Your task to perform on an android device: open chrome and create a bookmark for the current page Image 0: 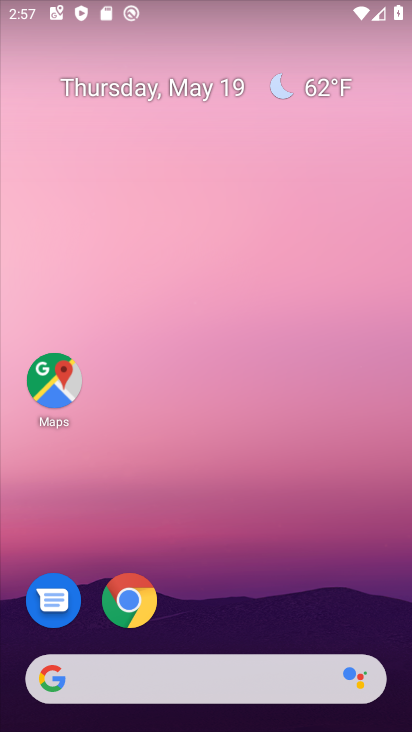
Step 0: press home button
Your task to perform on an android device: open chrome and create a bookmark for the current page Image 1: 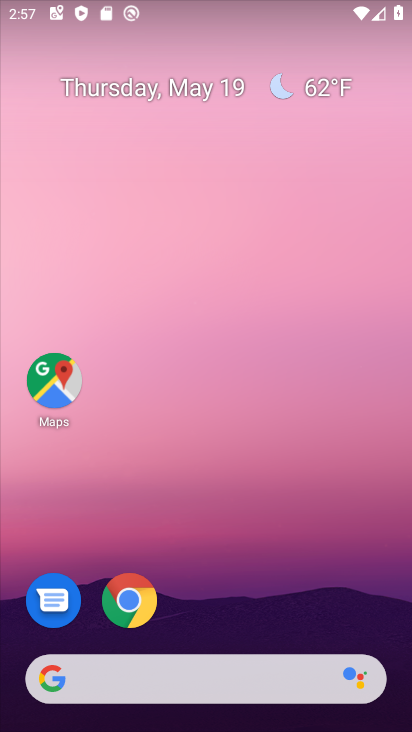
Step 1: drag from (52, 471) to (210, 152)
Your task to perform on an android device: open chrome and create a bookmark for the current page Image 2: 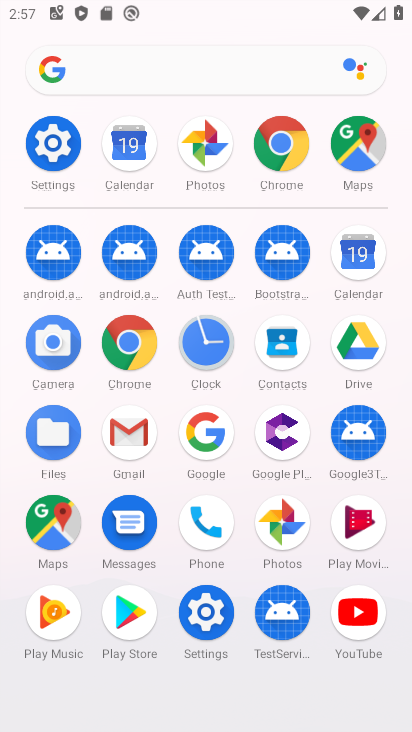
Step 2: click (287, 143)
Your task to perform on an android device: open chrome and create a bookmark for the current page Image 3: 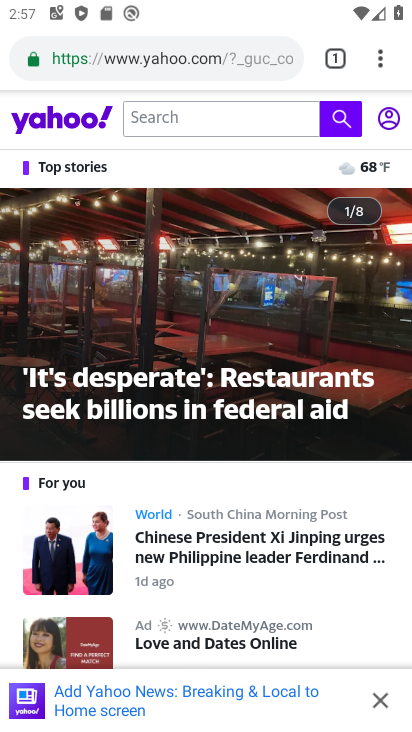
Step 3: click (339, 60)
Your task to perform on an android device: open chrome and create a bookmark for the current page Image 4: 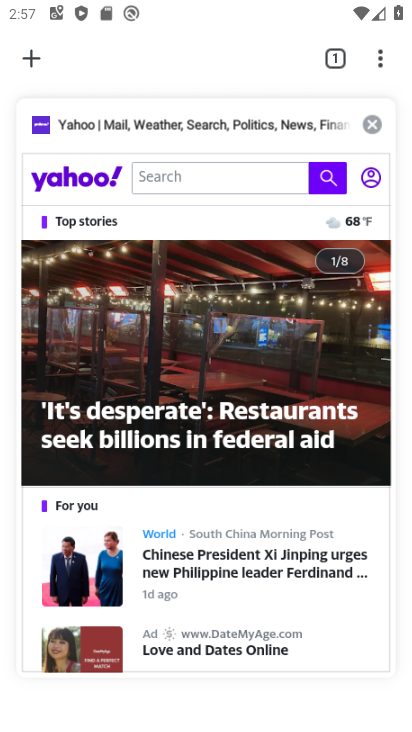
Step 4: click (195, 299)
Your task to perform on an android device: open chrome and create a bookmark for the current page Image 5: 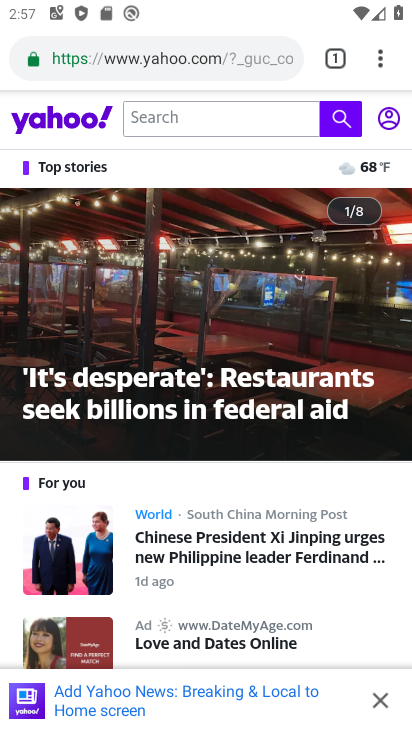
Step 5: click (376, 58)
Your task to perform on an android device: open chrome and create a bookmark for the current page Image 6: 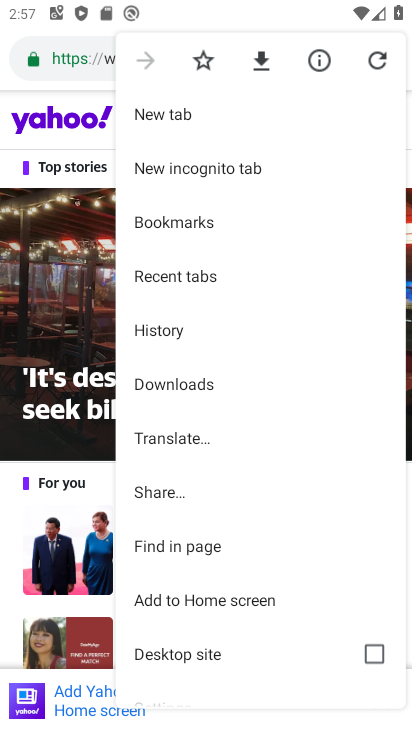
Step 6: click (198, 62)
Your task to perform on an android device: open chrome and create a bookmark for the current page Image 7: 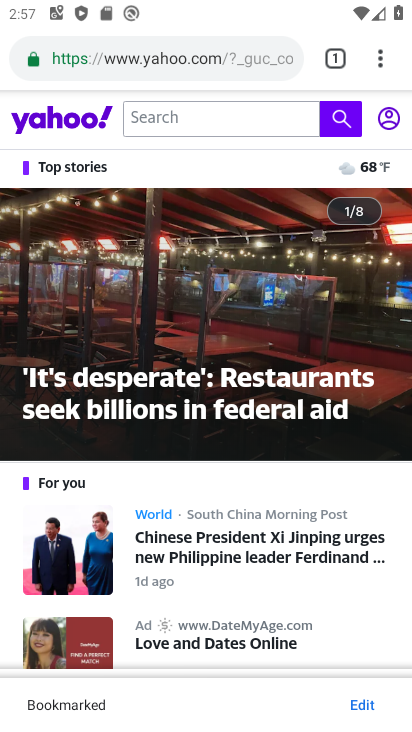
Step 7: task complete